Your task to perform on an android device: read, delete, or share a saved page in the chrome app Image 0: 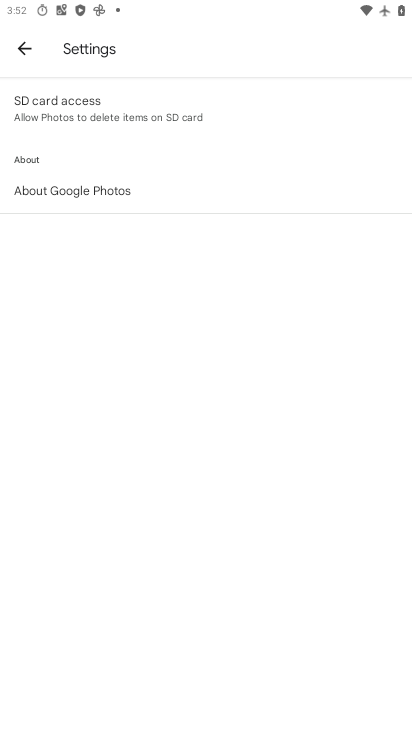
Step 0: press home button
Your task to perform on an android device: read, delete, or share a saved page in the chrome app Image 1: 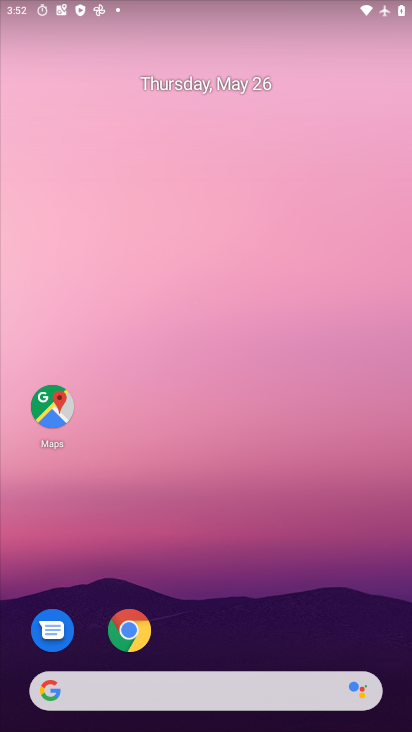
Step 1: press home button
Your task to perform on an android device: read, delete, or share a saved page in the chrome app Image 2: 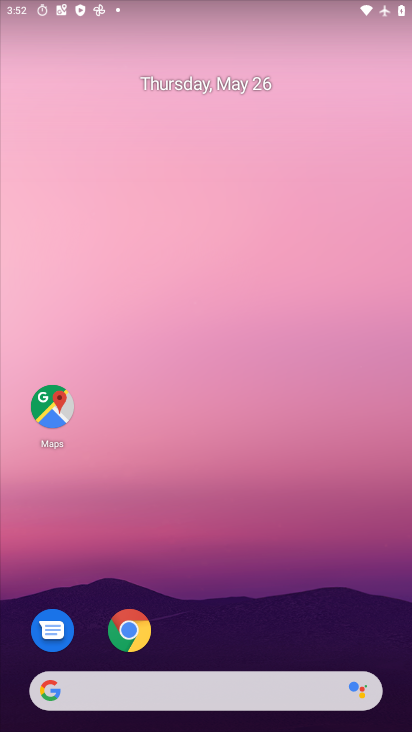
Step 2: click (209, 630)
Your task to perform on an android device: read, delete, or share a saved page in the chrome app Image 3: 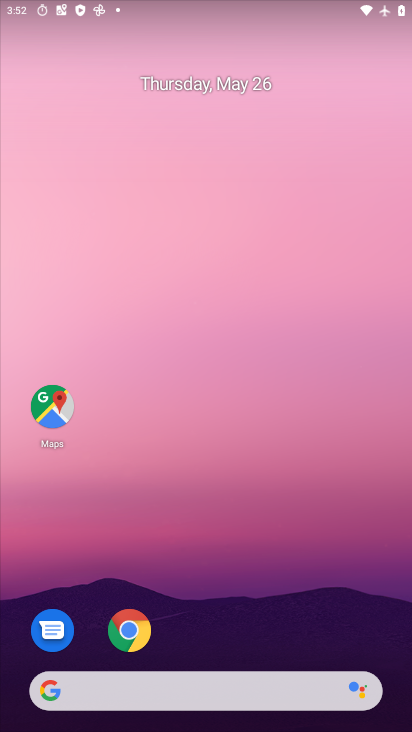
Step 3: click (141, 629)
Your task to perform on an android device: read, delete, or share a saved page in the chrome app Image 4: 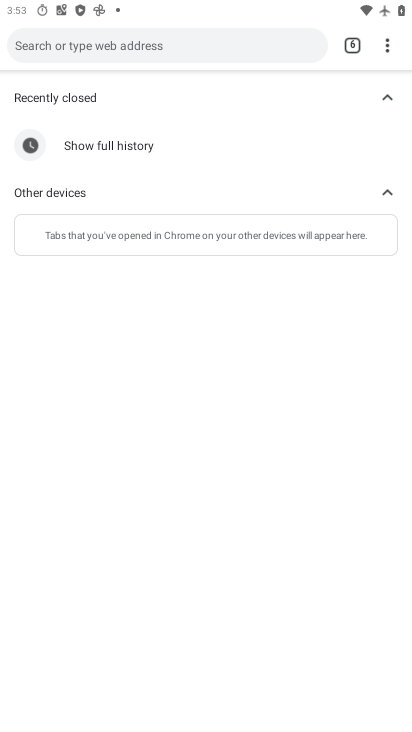
Step 4: press home button
Your task to perform on an android device: read, delete, or share a saved page in the chrome app Image 5: 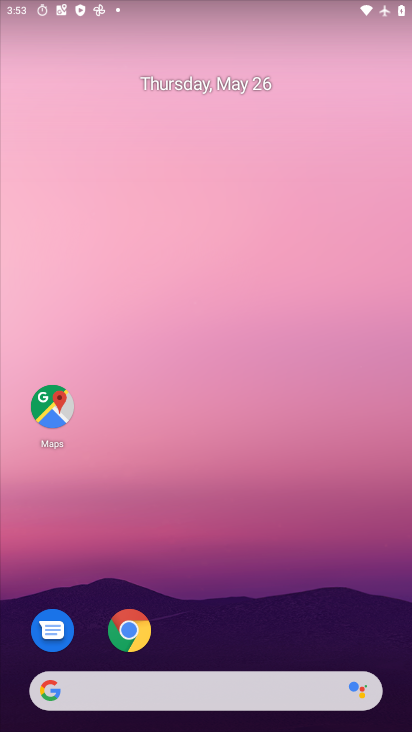
Step 5: click (133, 624)
Your task to perform on an android device: read, delete, or share a saved page in the chrome app Image 6: 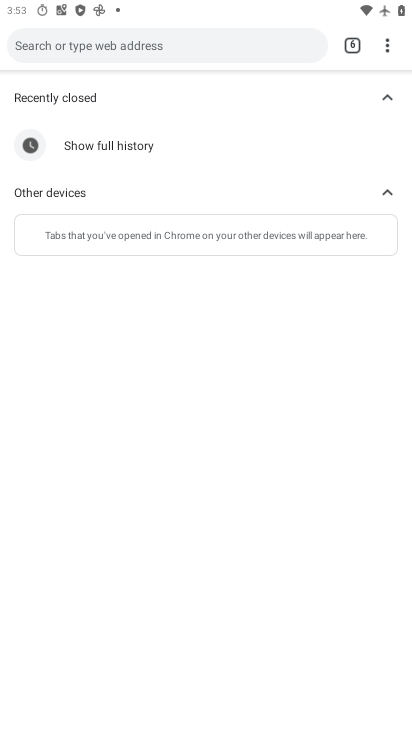
Step 6: click (396, 43)
Your task to perform on an android device: read, delete, or share a saved page in the chrome app Image 7: 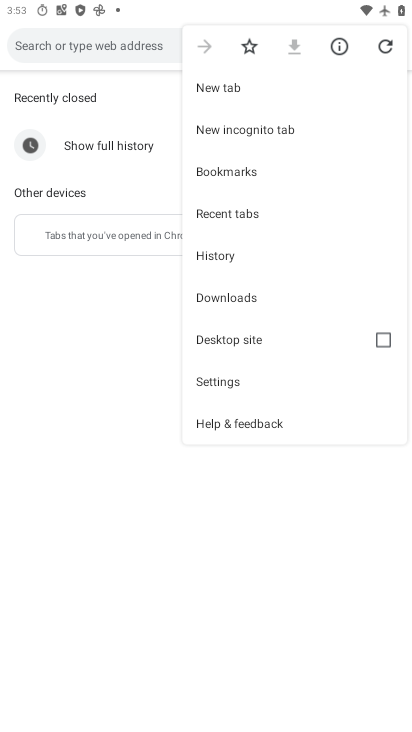
Step 7: click (223, 385)
Your task to perform on an android device: read, delete, or share a saved page in the chrome app Image 8: 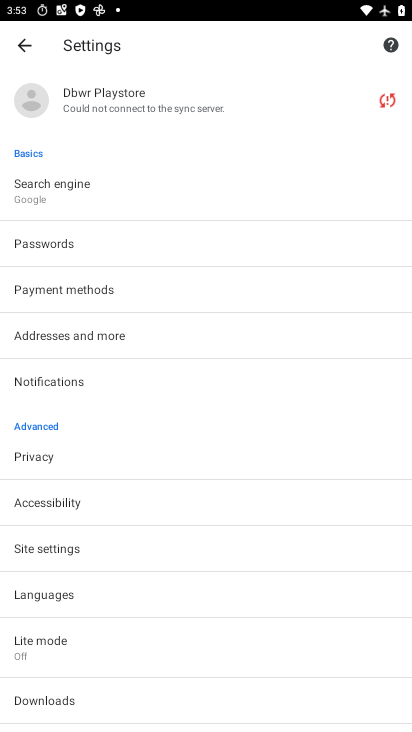
Step 8: click (22, 55)
Your task to perform on an android device: read, delete, or share a saved page in the chrome app Image 9: 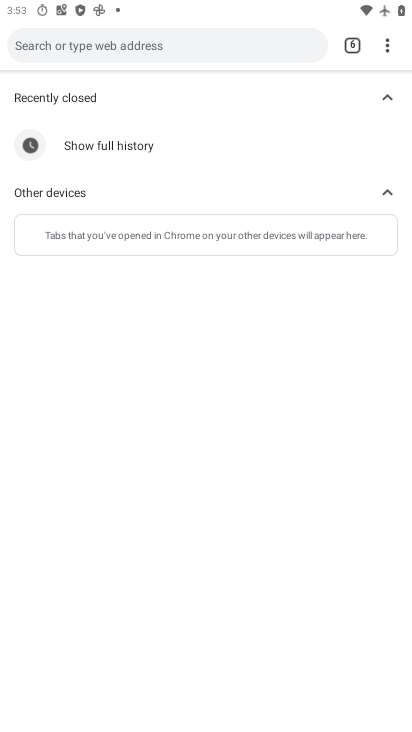
Step 9: click (388, 38)
Your task to perform on an android device: read, delete, or share a saved page in the chrome app Image 10: 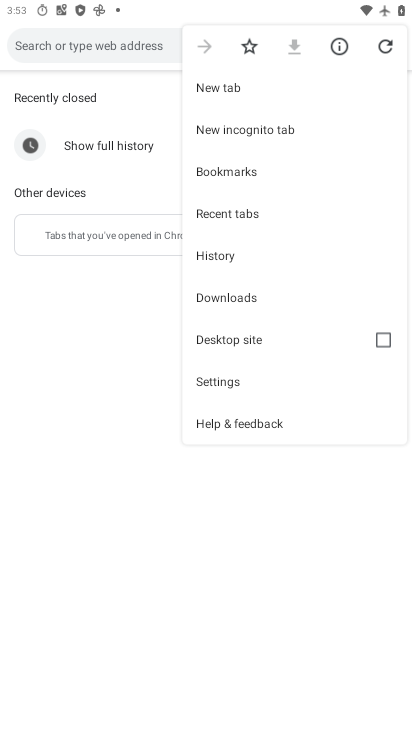
Step 10: click (239, 297)
Your task to perform on an android device: read, delete, or share a saved page in the chrome app Image 11: 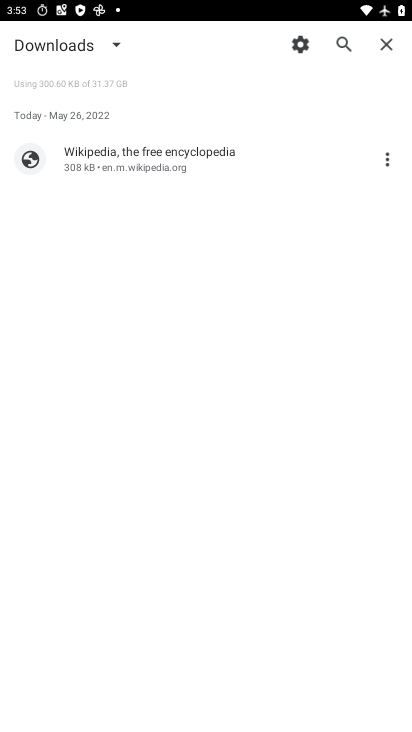
Step 11: click (79, 46)
Your task to perform on an android device: read, delete, or share a saved page in the chrome app Image 12: 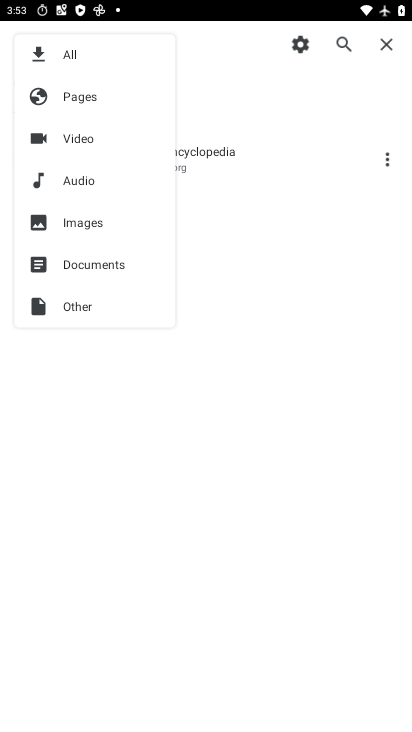
Step 12: click (77, 99)
Your task to perform on an android device: read, delete, or share a saved page in the chrome app Image 13: 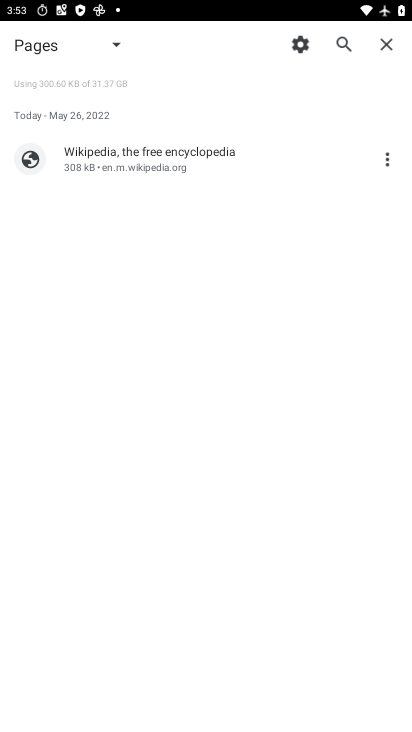
Step 13: click (383, 154)
Your task to perform on an android device: read, delete, or share a saved page in the chrome app Image 14: 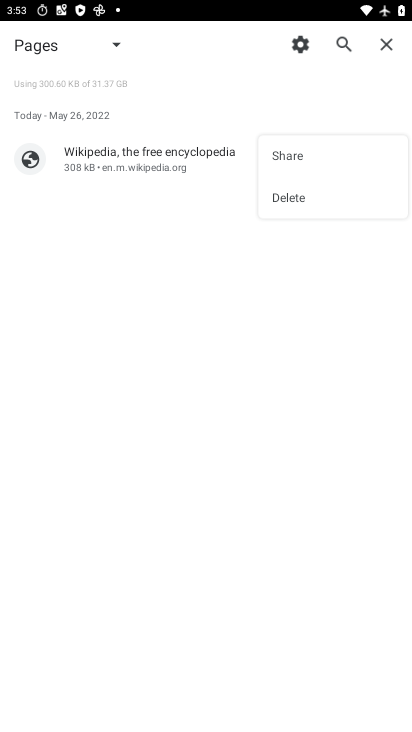
Step 14: click (328, 200)
Your task to perform on an android device: read, delete, or share a saved page in the chrome app Image 15: 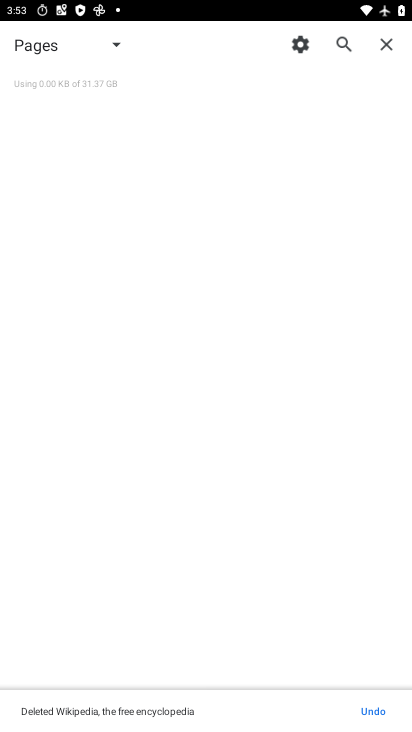
Step 15: task complete